Your task to perform on an android device: What's on my calendar today? Image 0: 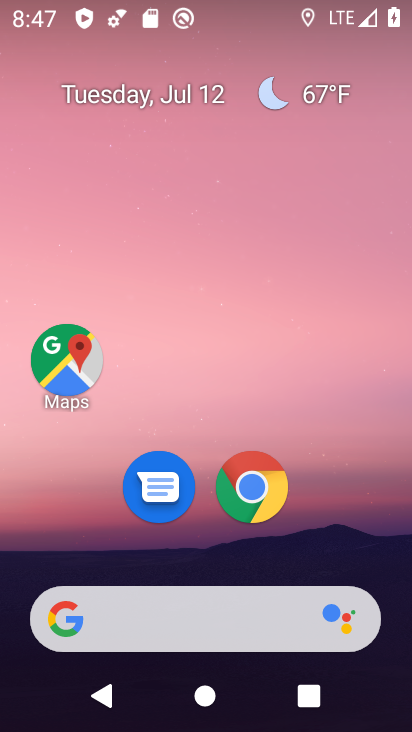
Step 0: drag from (204, 441) to (247, 76)
Your task to perform on an android device: What's on my calendar today? Image 1: 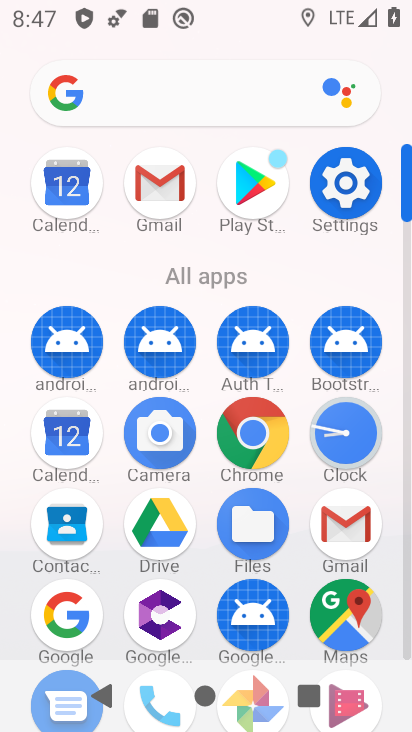
Step 1: click (66, 461)
Your task to perform on an android device: What's on my calendar today? Image 2: 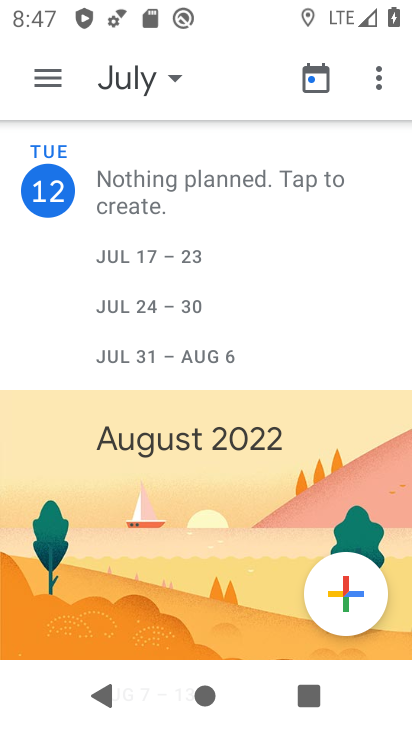
Step 2: click (127, 78)
Your task to perform on an android device: What's on my calendar today? Image 3: 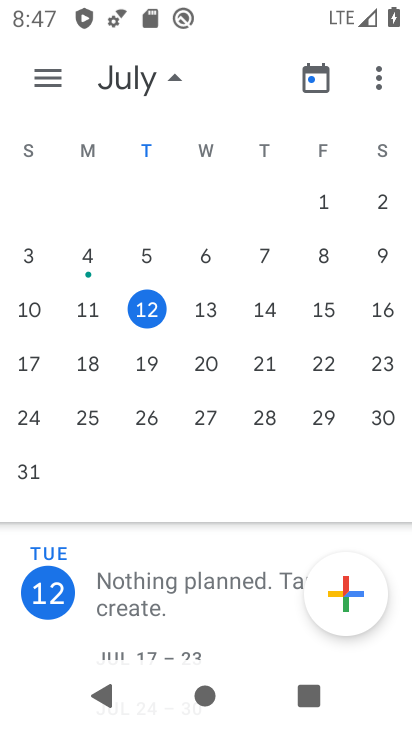
Step 3: click (151, 315)
Your task to perform on an android device: What's on my calendar today? Image 4: 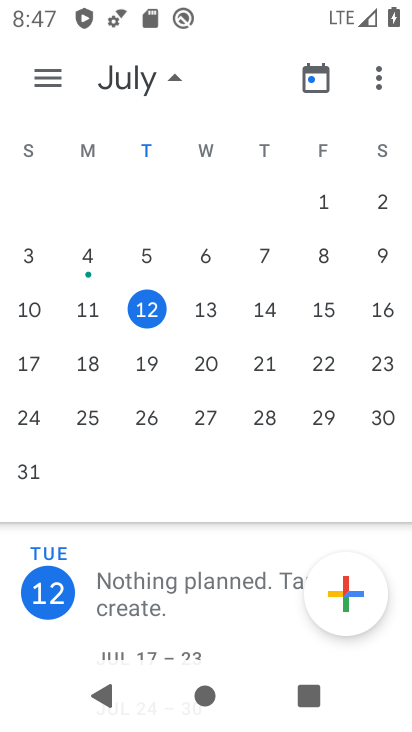
Step 4: click (148, 308)
Your task to perform on an android device: What's on my calendar today? Image 5: 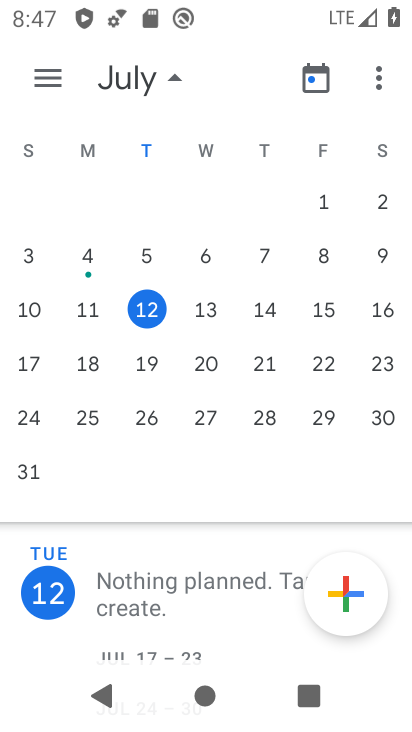
Step 5: task complete